Your task to perform on an android device: Add "macbook pro 15 inch" to the cart on newegg, then select checkout. Image 0: 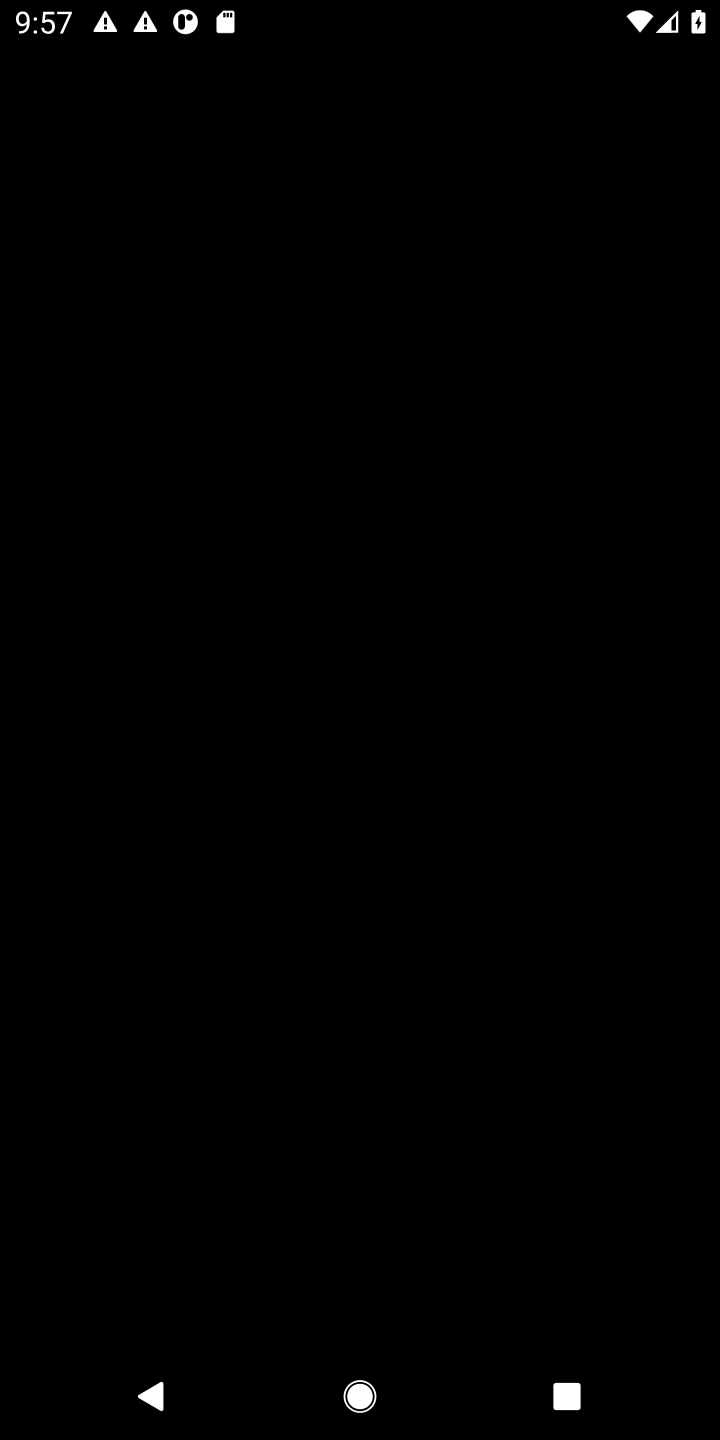
Step 0: click (133, 1273)
Your task to perform on an android device: Add "macbook pro 15 inch" to the cart on newegg, then select checkout. Image 1: 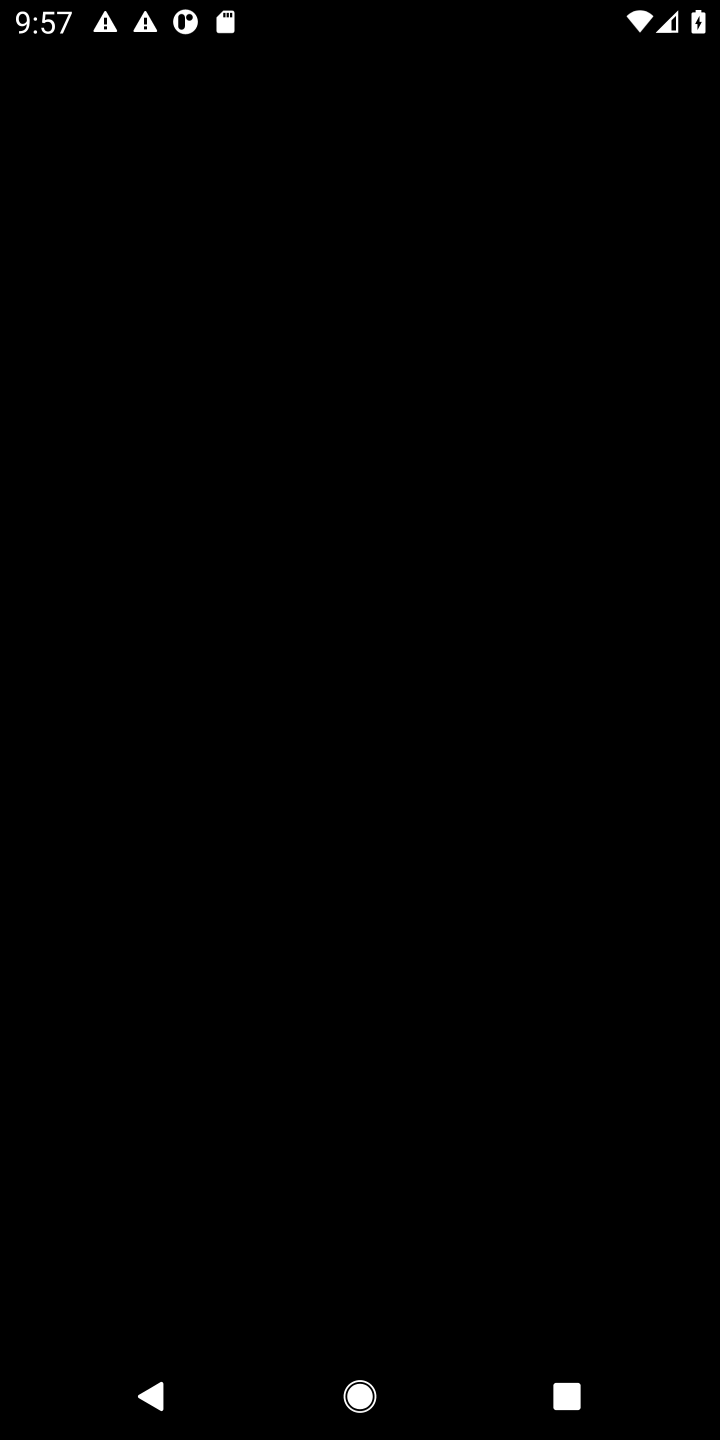
Step 1: press home button
Your task to perform on an android device: Add "macbook pro 15 inch" to the cart on newegg, then select checkout. Image 2: 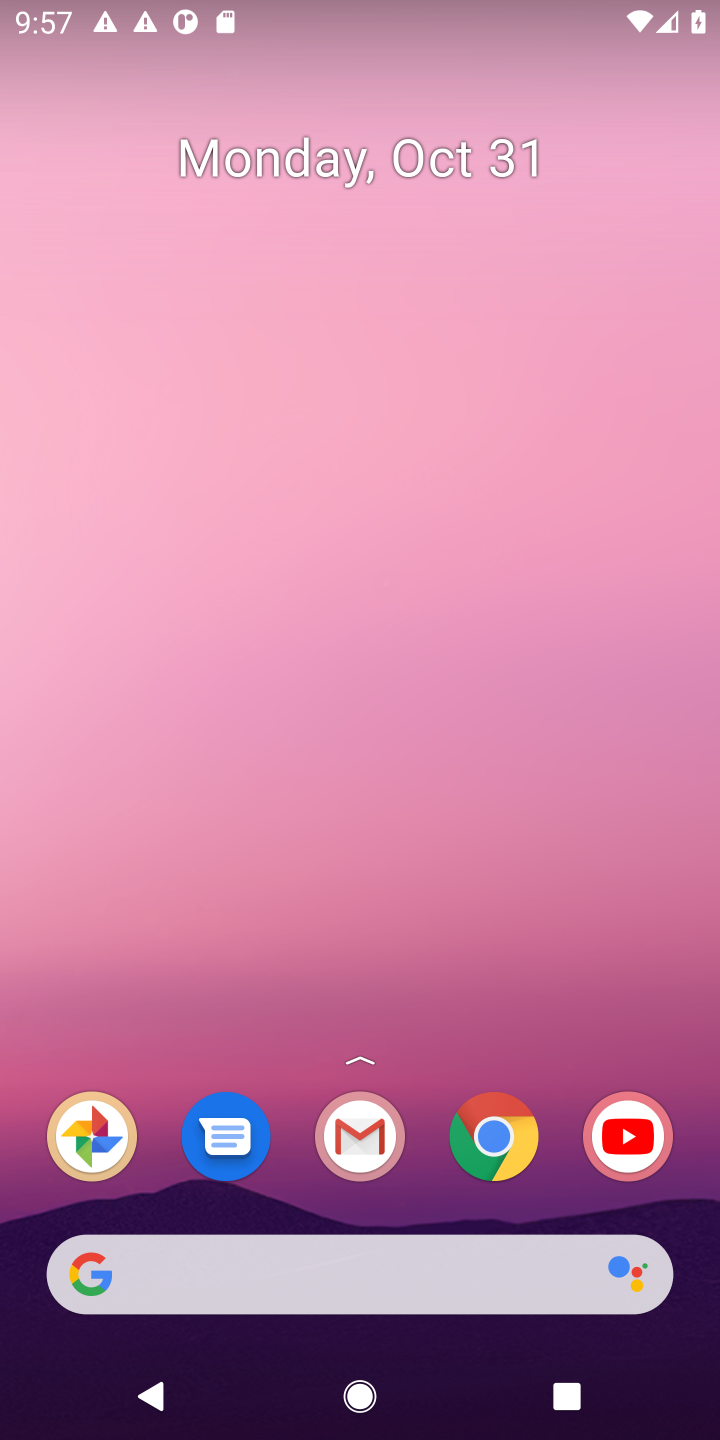
Step 2: click (164, 1259)
Your task to perform on an android device: Add "macbook pro 15 inch" to the cart on newegg, then select checkout. Image 3: 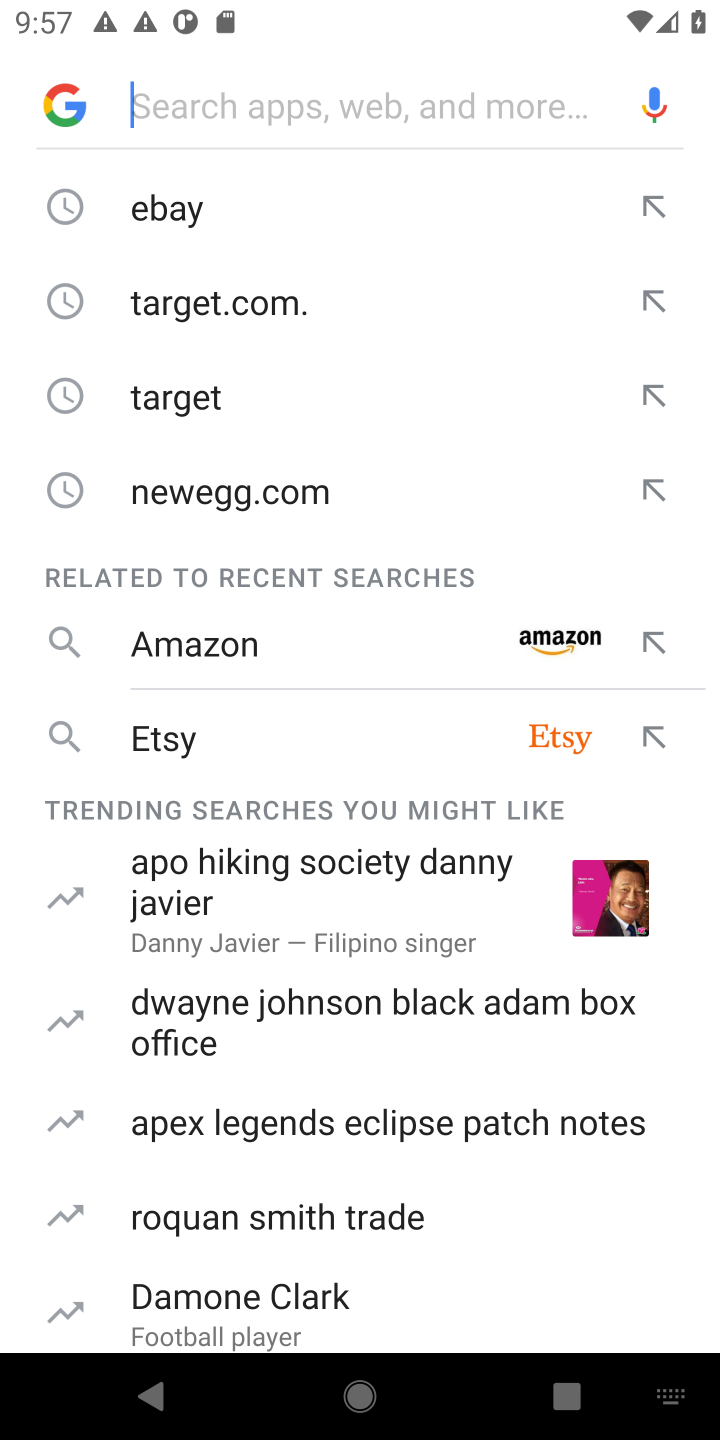
Step 3: type "newegg"
Your task to perform on an android device: Add "macbook pro 15 inch" to the cart on newegg, then select checkout. Image 4: 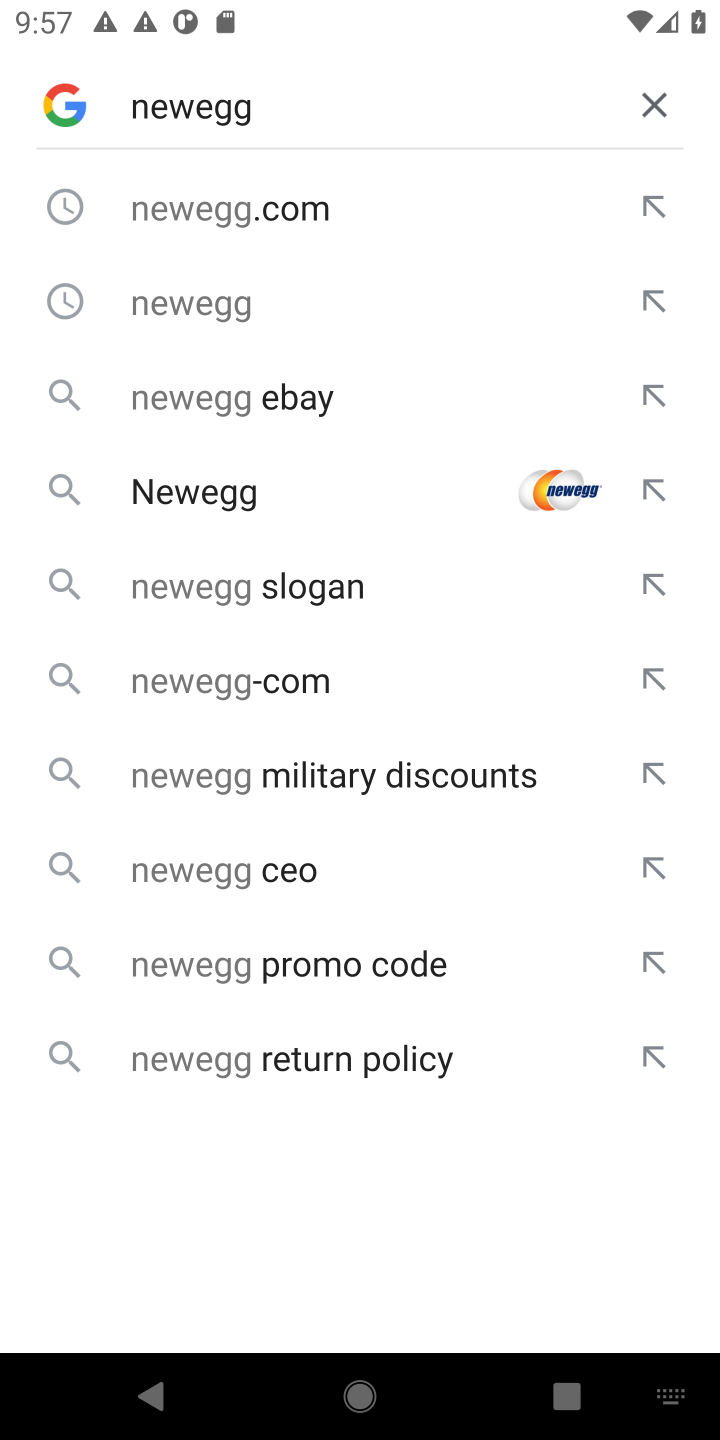
Step 4: press enter
Your task to perform on an android device: Add "macbook pro 15 inch" to the cart on newegg, then select checkout. Image 5: 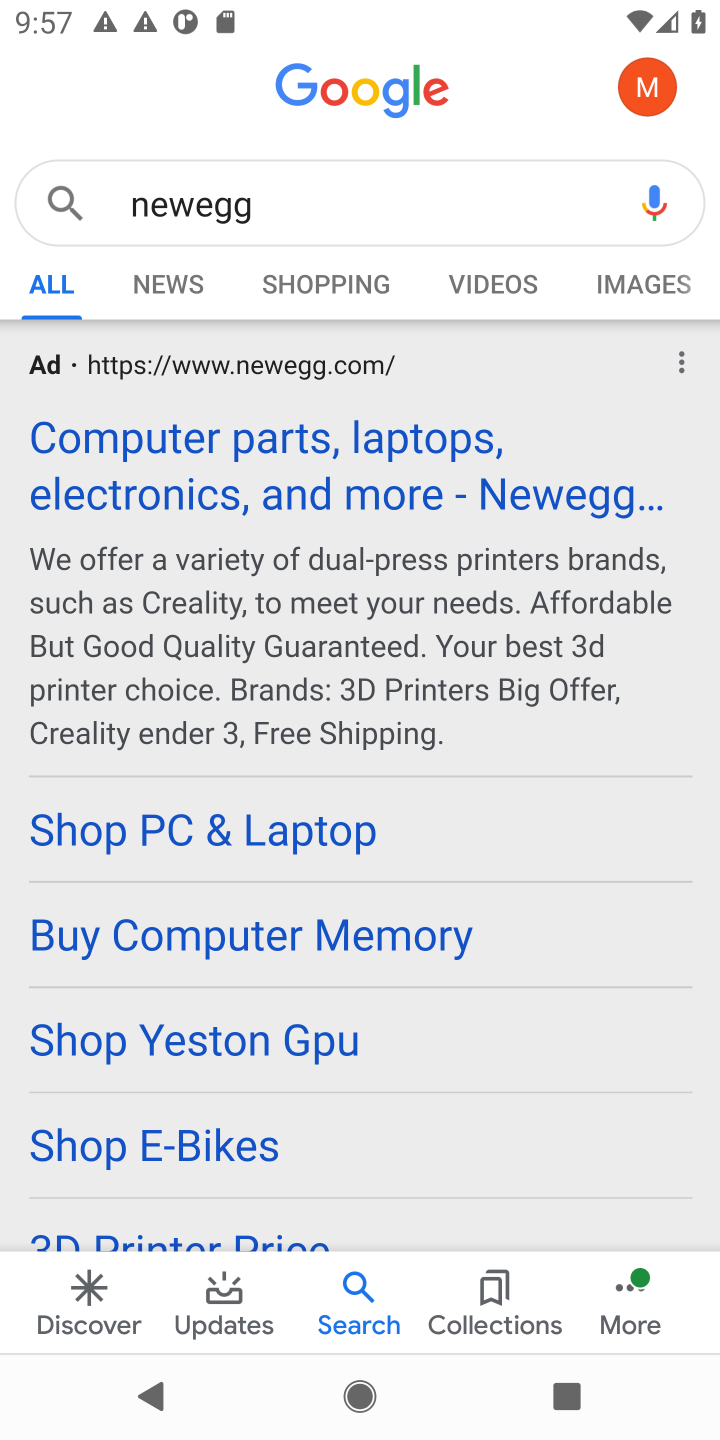
Step 5: drag from (537, 1028) to (575, 483)
Your task to perform on an android device: Add "macbook pro 15 inch" to the cart on newegg, then select checkout. Image 6: 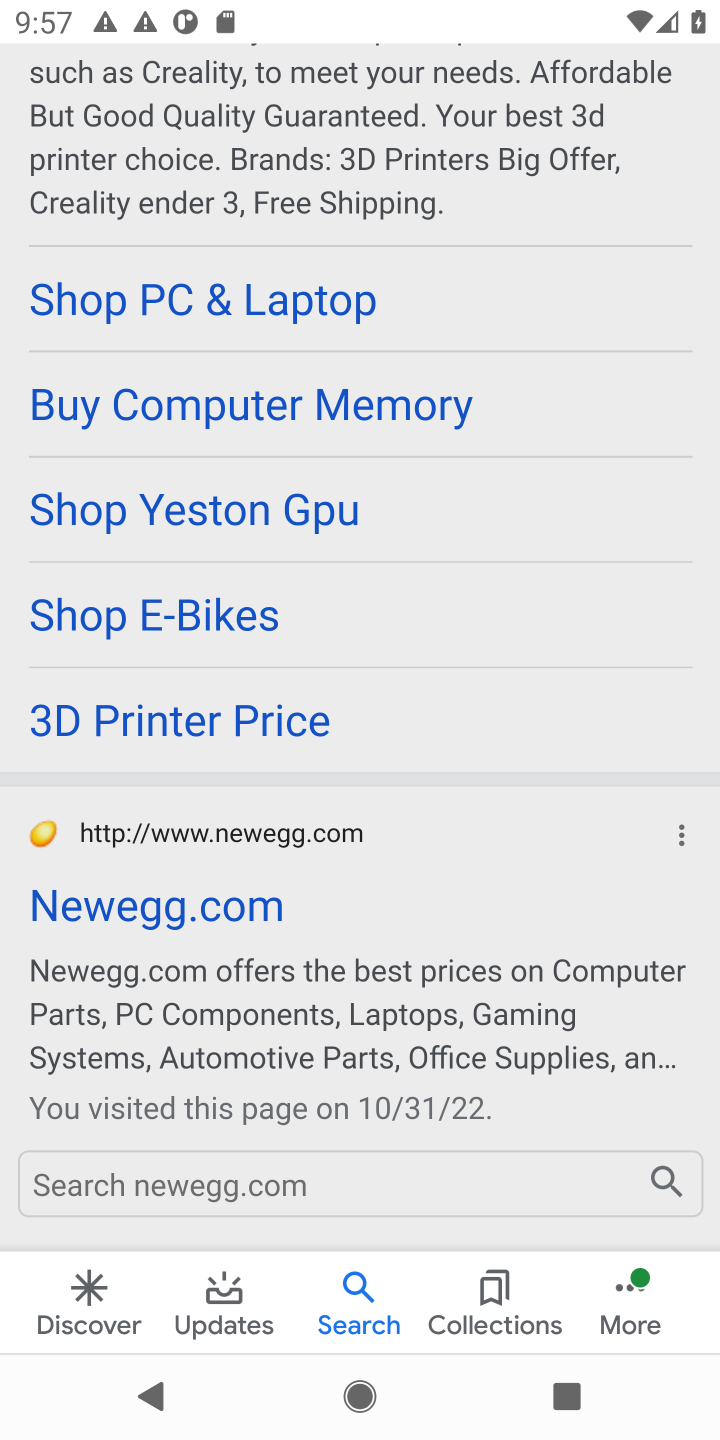
Step 6: click (114, 903)
Your task to perform on an android device: Add "macbook pro 15 inch" to the cart on newegg, then select checkout. Image 7: 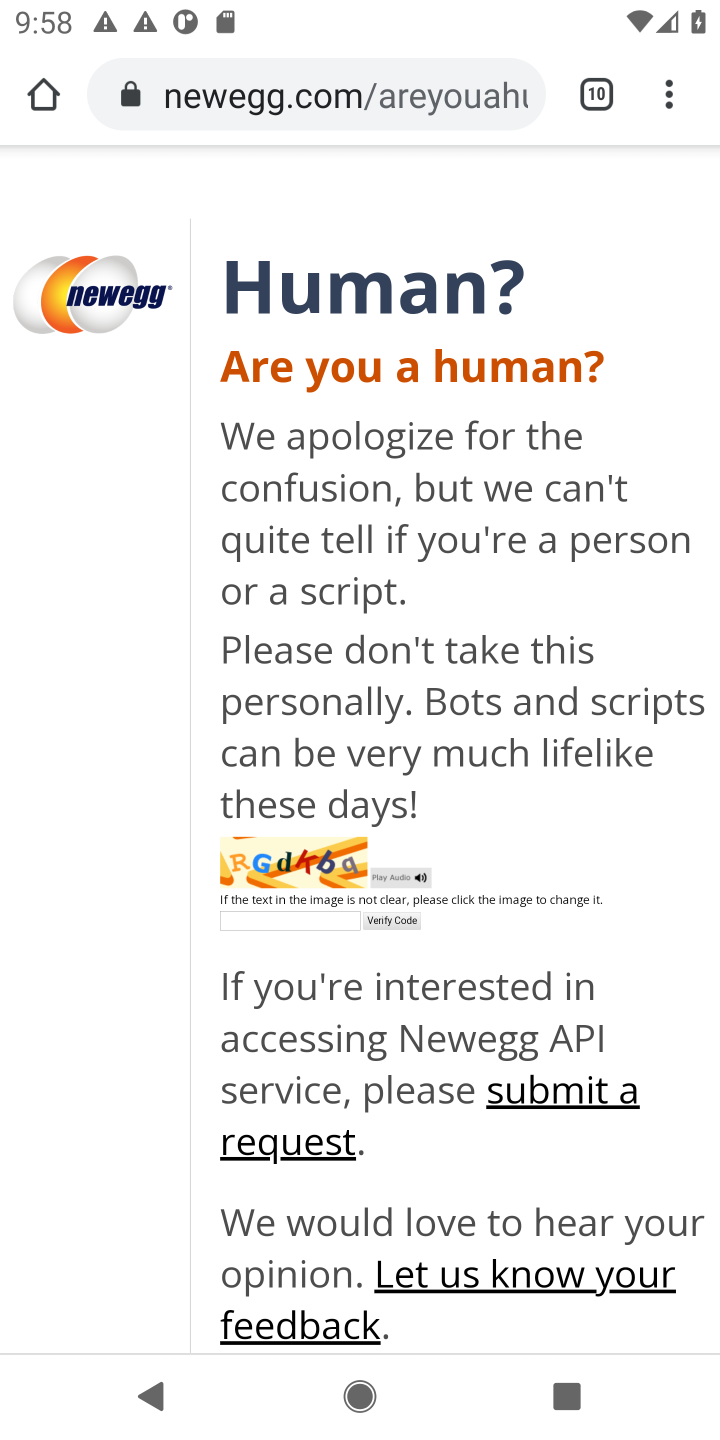
Step 7: task complete